Your task to perform on an android device: set default search engine in the chrome app Image 0: 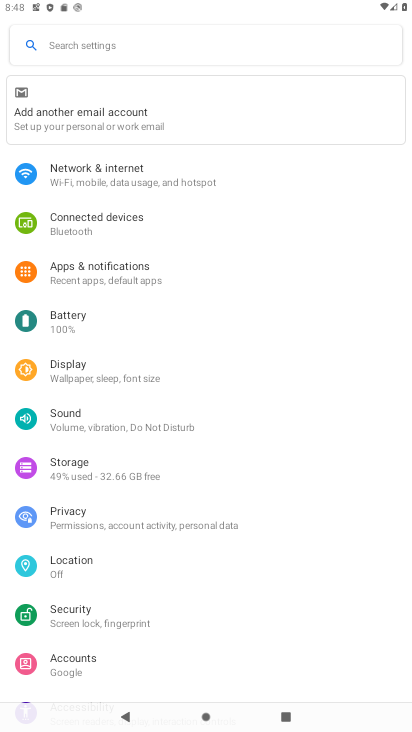
Step 0: press home button
Your task to perform on an android device: set default search engine in the chrome app Image 1: 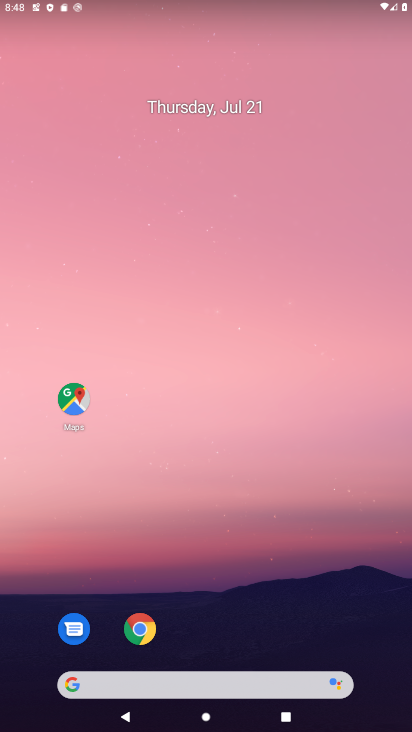
Step 1: click (145, 631)
Your task to perform on an android device: set default search engine in the chrome app Image 2: 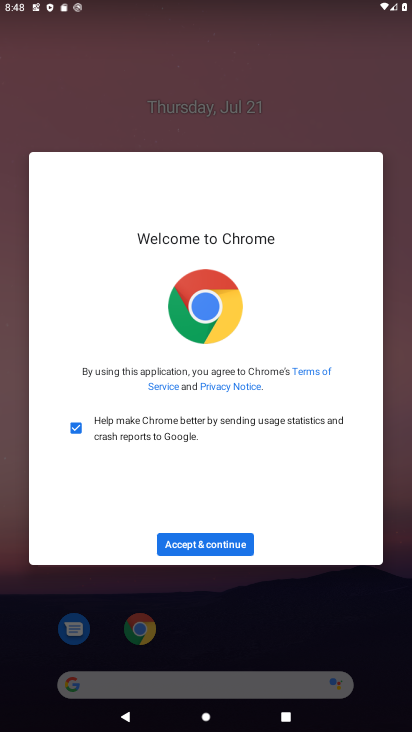
Step 2: click (209, 545)
Your task to perform on an android device: set default search engine in the chrome app Image 3: 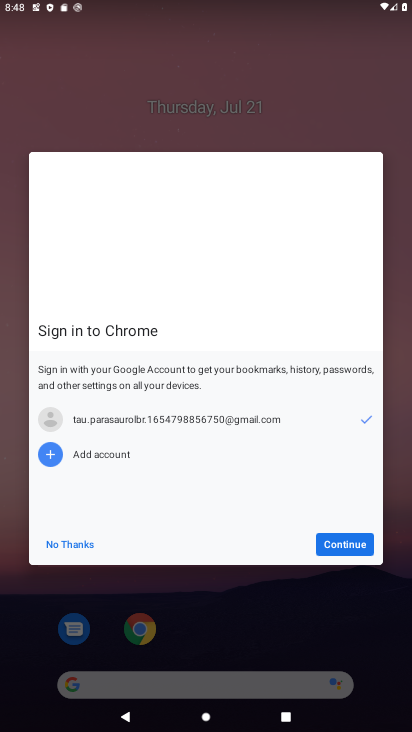
Step 3: click (343, 553)
Your task to perform on an android device: set default search engine in the chrome app Image 4: 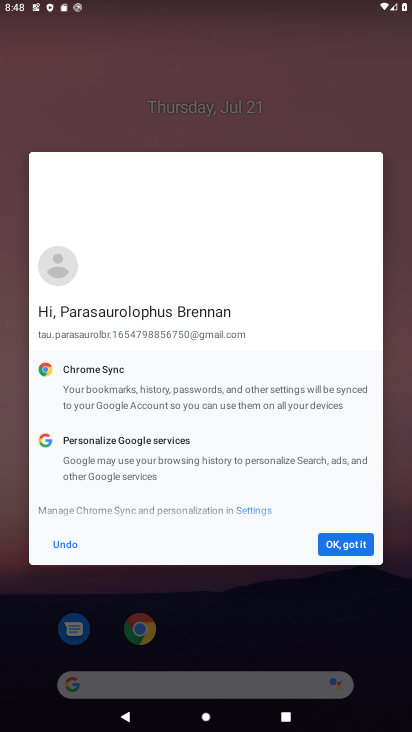
Step 4: click (343, 553)
Your task to perform on an android device: set default search engine in the chrome app Image 5: 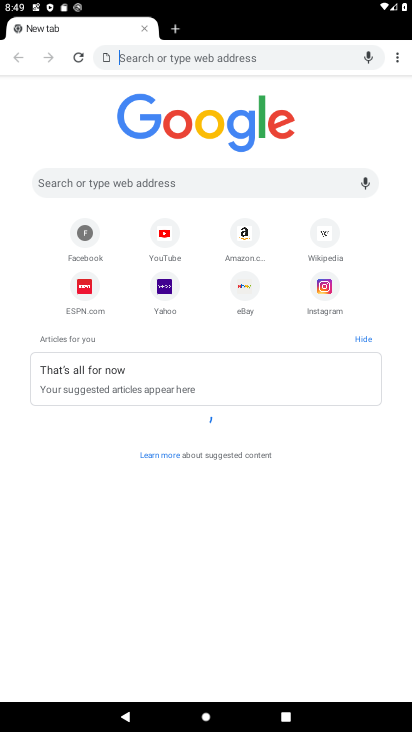
Step 5: click (403, 54)
Your task to perform on an android device: set default search engine in the chrome app Image 6: 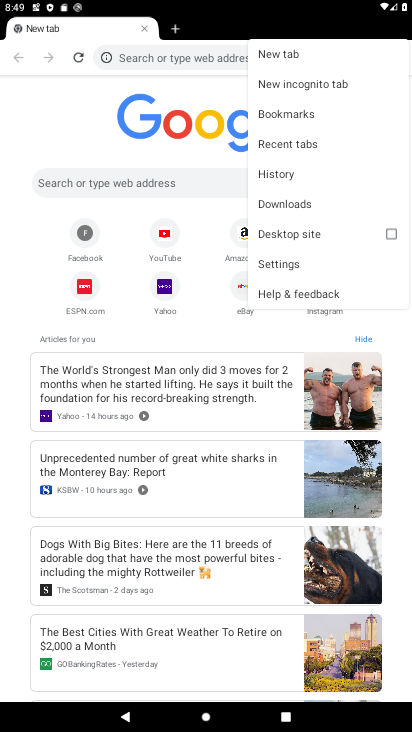
Step 6: click (272, 266)
Your task to perform on an android device: set default search engine in the chrome app Image 7: 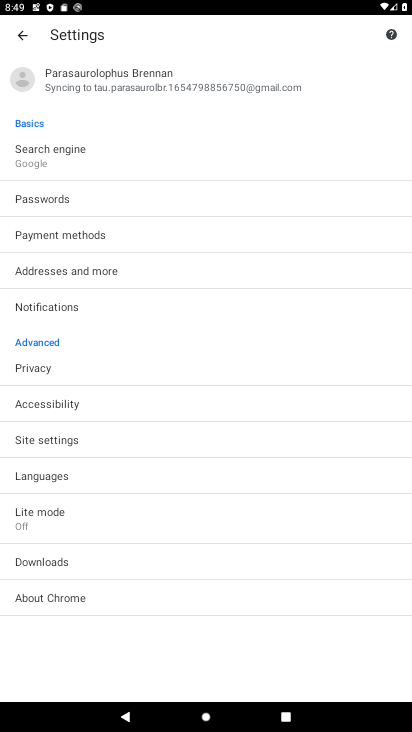
Step 7: click (94, 164)
Your task to perform on an android device: set default search engine in the chrome app Image 8: 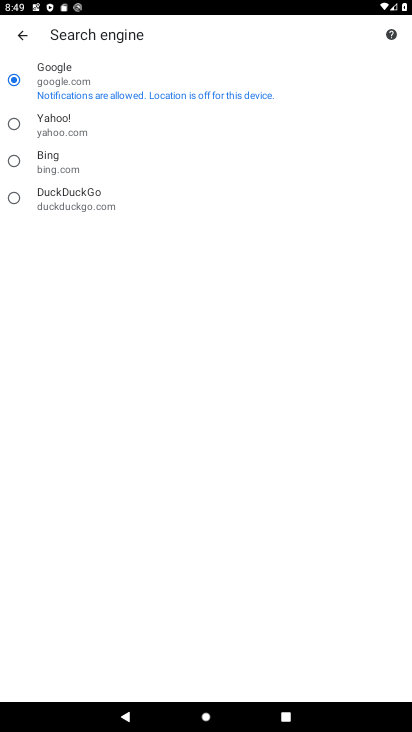
Step 8: click (94, 164)
Your task to perform on an android device: set default search engine in the chrome app Image 9: 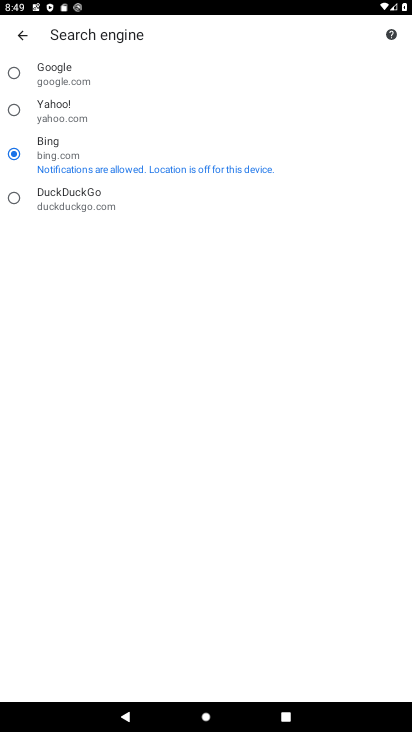
Step 9: task complete